Your task to perform on an android device: empty trash in the gmail app Image 0: 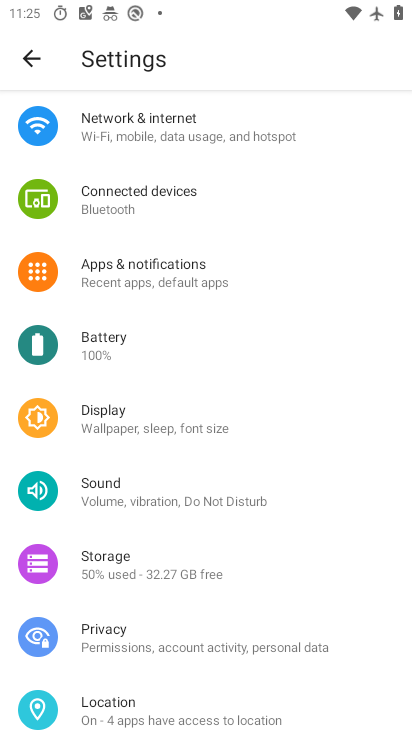
Step 0: press home button
Your task to perform on an android device: empty trash in the gmail app Image 1: 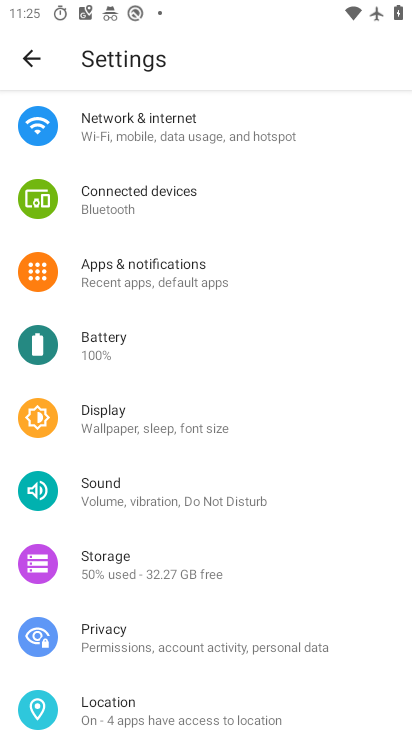
Step 1: press home button
Your task to perform on an android device: empty trash in the gmail app Image 2: 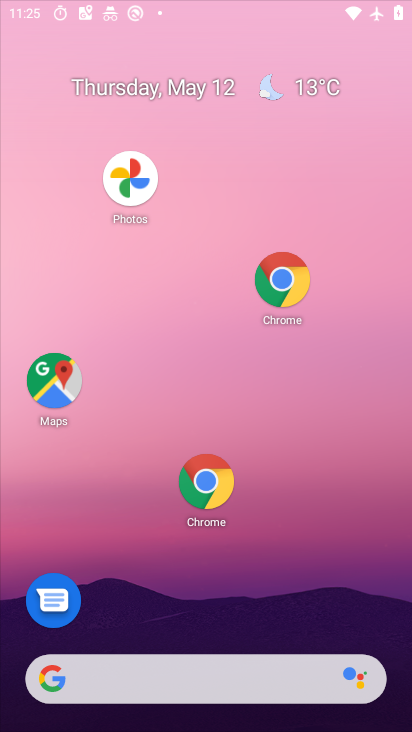
Step 2: press home button
Your task to perform on an android device: empty trash in the gmail app Image 3: 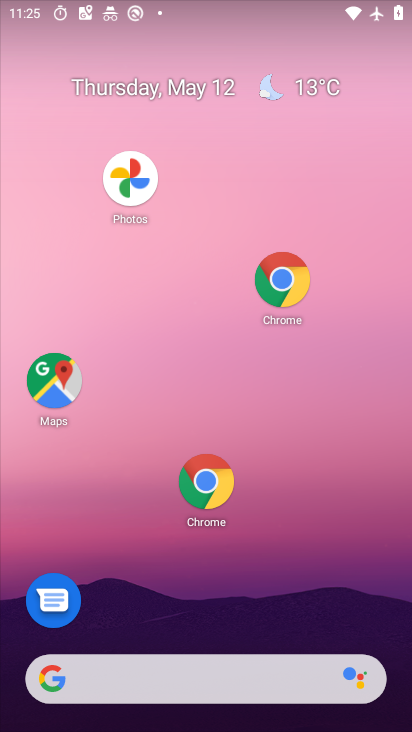
Step 3: drag from (403, 642) to (165, 131)
Your task to perform on an android device: empty trash in the gmail app Image 4: 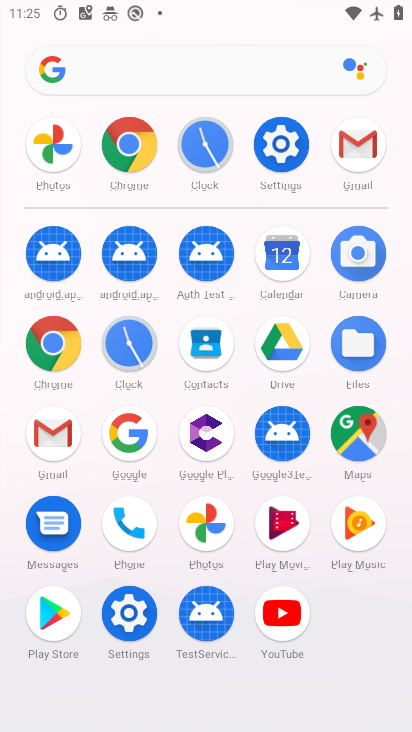
Step 4: click (346, 149)
Your task to perform on an android device: empty trash in the gmail app Image 5: 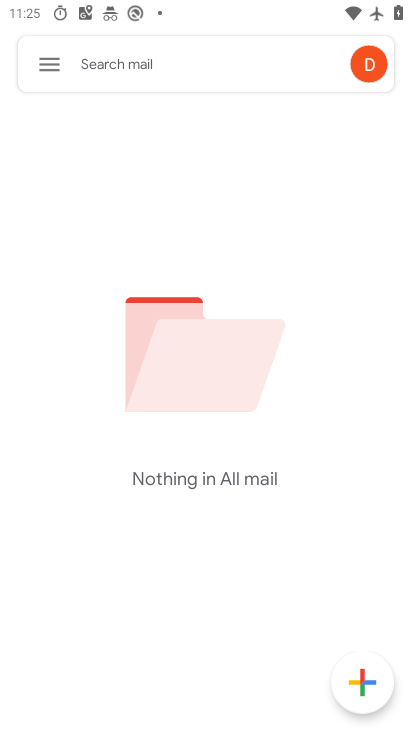
Step 5: click (54, 50)
Your task to perform on an android device: empty trash in the gmail app Image 6: 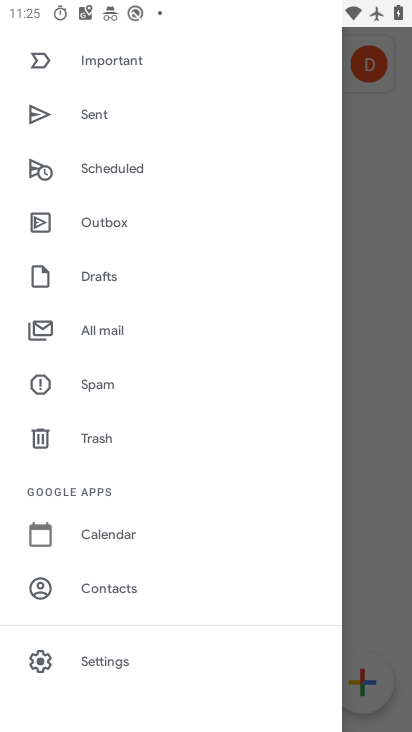
Step 6: click (93, 431)
Your task to perform on an android device: empty trash in the gmail app Image 7: 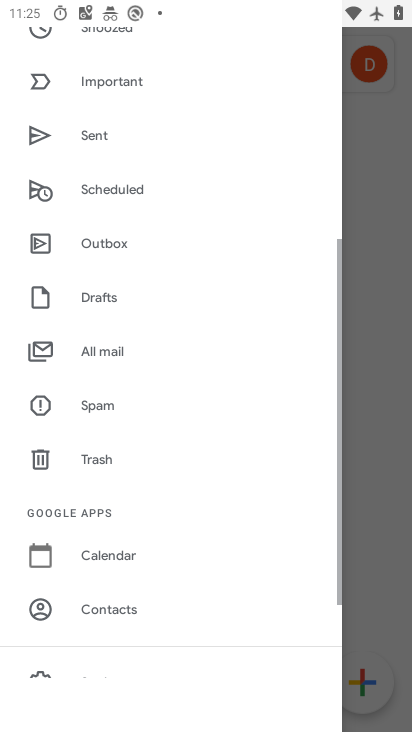
Step 7: click (92, 446)
Your task to perform on an android device: empty trash in the gmail app Image 8: 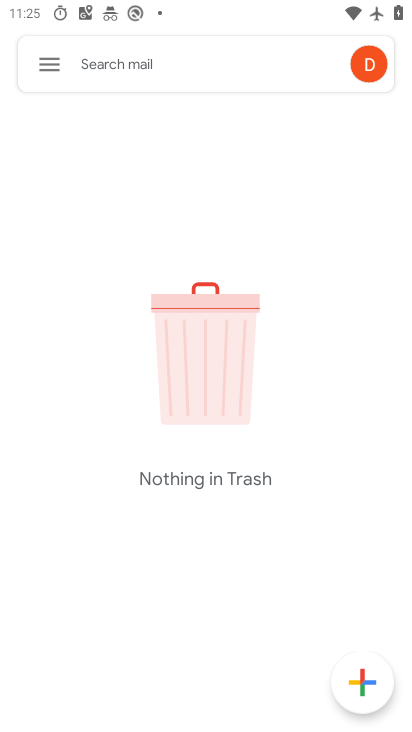
Step 8: task complete